Your task to perform on an android device: turn pop-ups off in chrome Image 0: 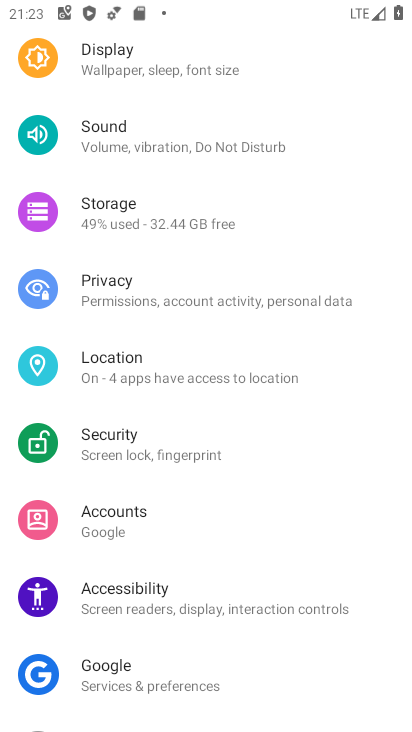
Step 0: press back button
Your task to perform on an android device: turn pop-ups off in chrome Image 1: 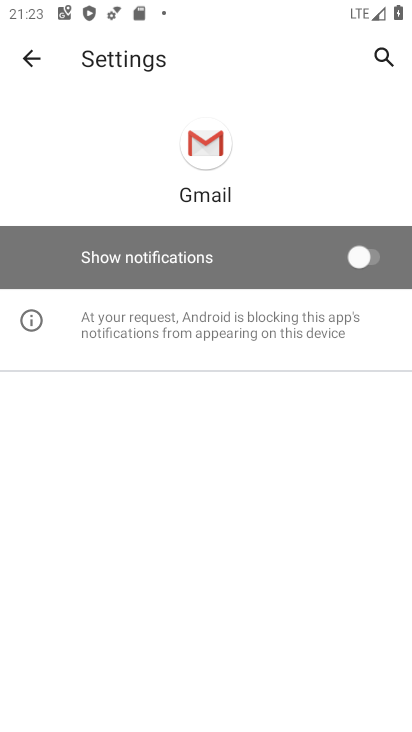
Step 1: press home button
Your task to perform on an android device: turn pop-ups off in chrome Image 2: 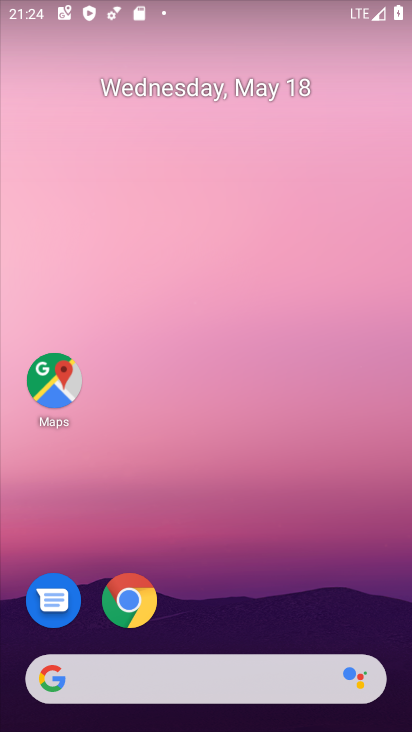
Step 2: click (131, 581)
Your task to perform on an android device: turn pop-ups off in chrome Image 3: 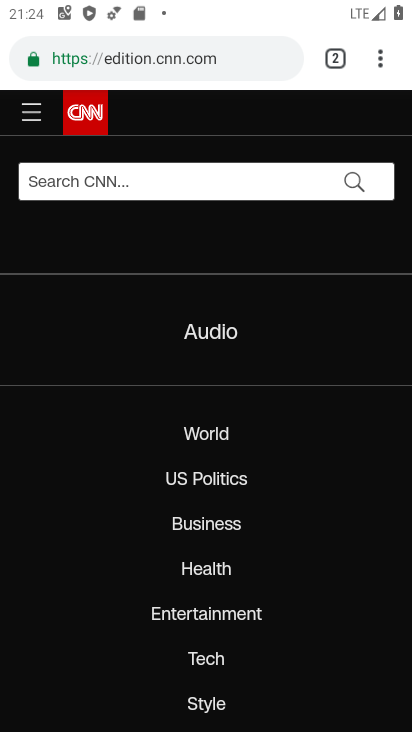
Step 3: click (375, 57)
Your task to perform on an android device: turn pop-ups off in chrome Image 4: 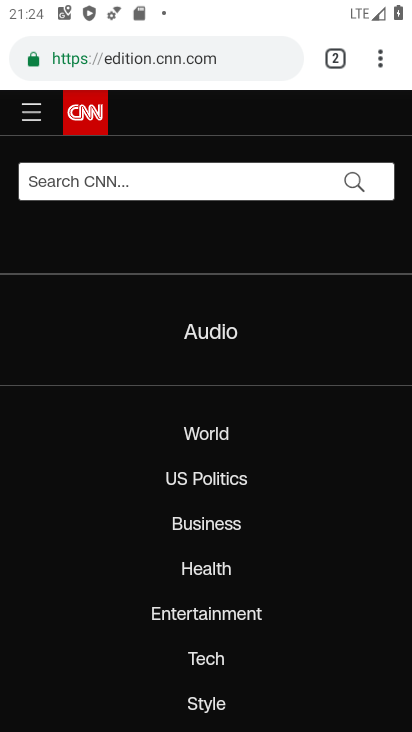
Step 4: drag from (381, 55) to (183, 622)
Your task to perform on an android device: turn pop-ups off in chrome Image 5: 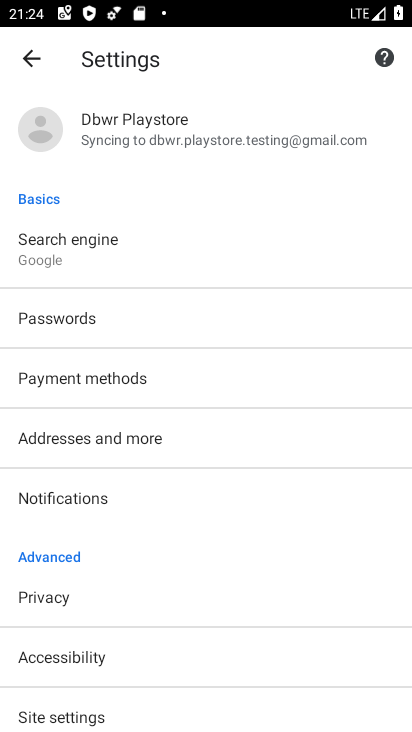
Step 5: drag from (155, 657) to (238, 261)
Your task to perform on an android device: turn pop-ups off in chrome Image 6: 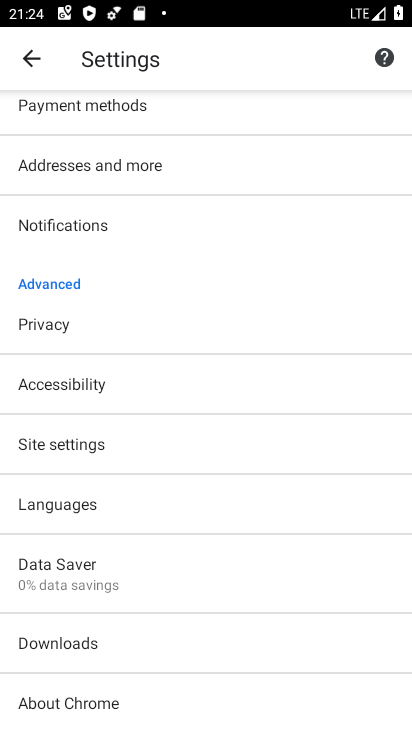
Step 6: click (70, 443)
Your task to perform on an android device: turn pop-ups off in chrome Image 7: 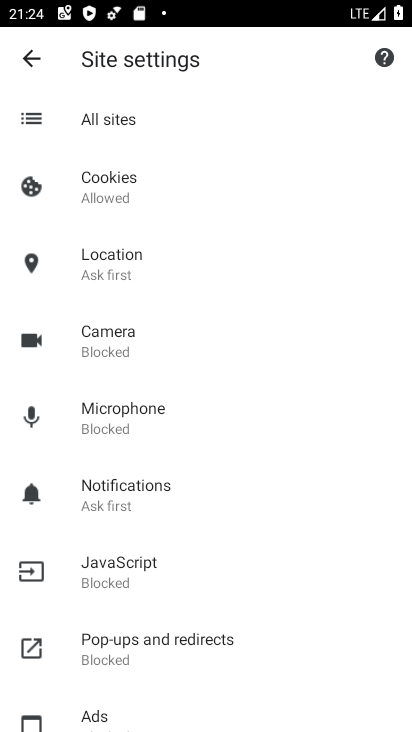
Step 7: click (151, 654)
Your task to perform on an android device: turn pop-ups off in chrome Image 8: 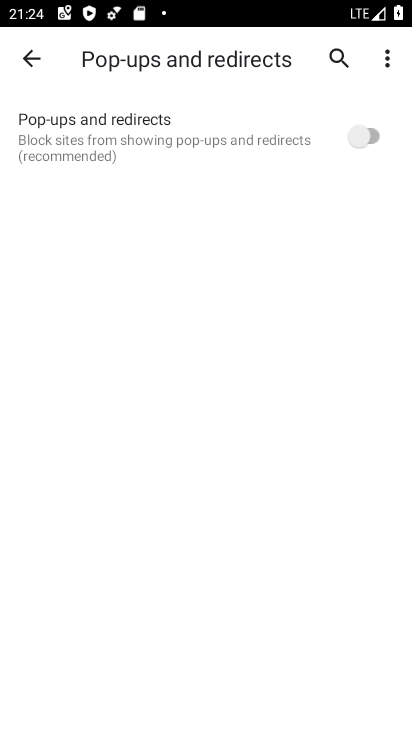
Step 8: task complete